Your task to perform on an android device: Show me recent news Image 0: 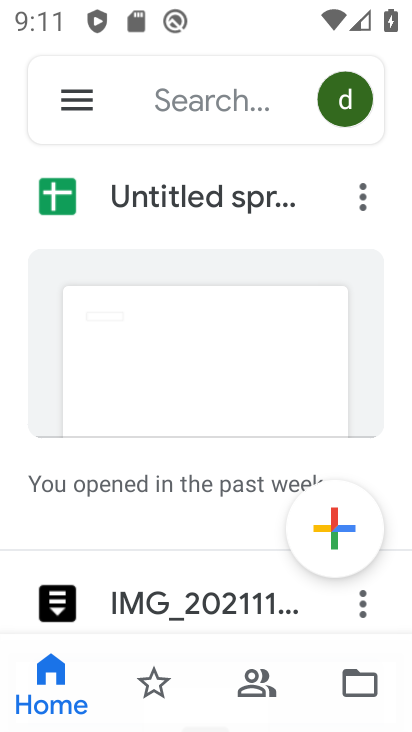
Step 0: press home button
Your task to perform on an android device: Show me recent news Image 1: 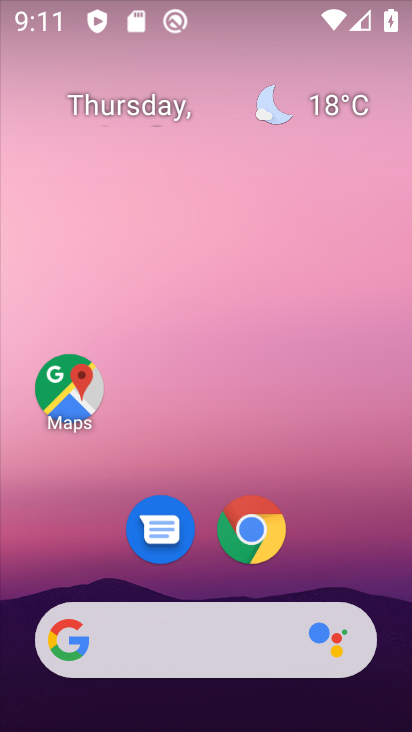
Step 1: task complete